Your task to perform on an android device: turn on data saver in the chrome app Image 0: 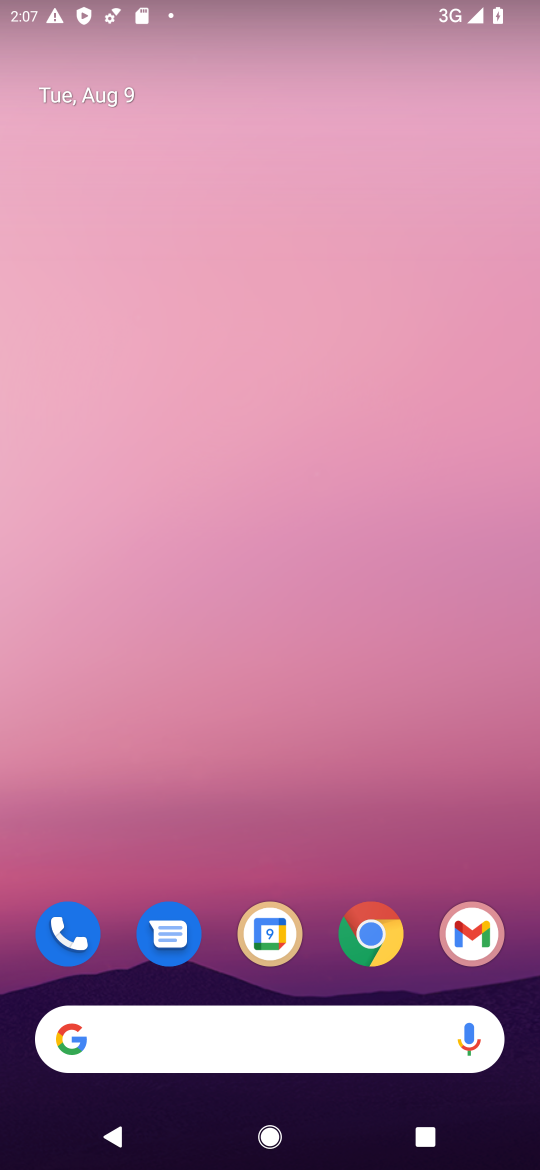
Step 0: click (353, 918)
Your task to perform on an android device: turn on data saver in the chrome app Image 1: 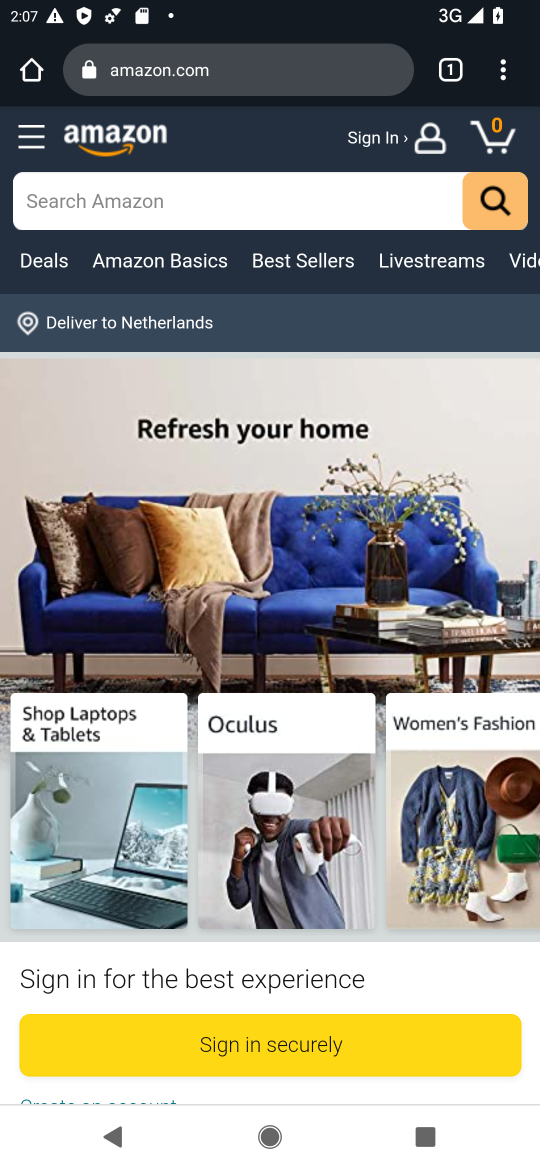
Step 1: click (511, 83)
Your task to perform on an android device: turn on data saver in the chrome app Image 2: 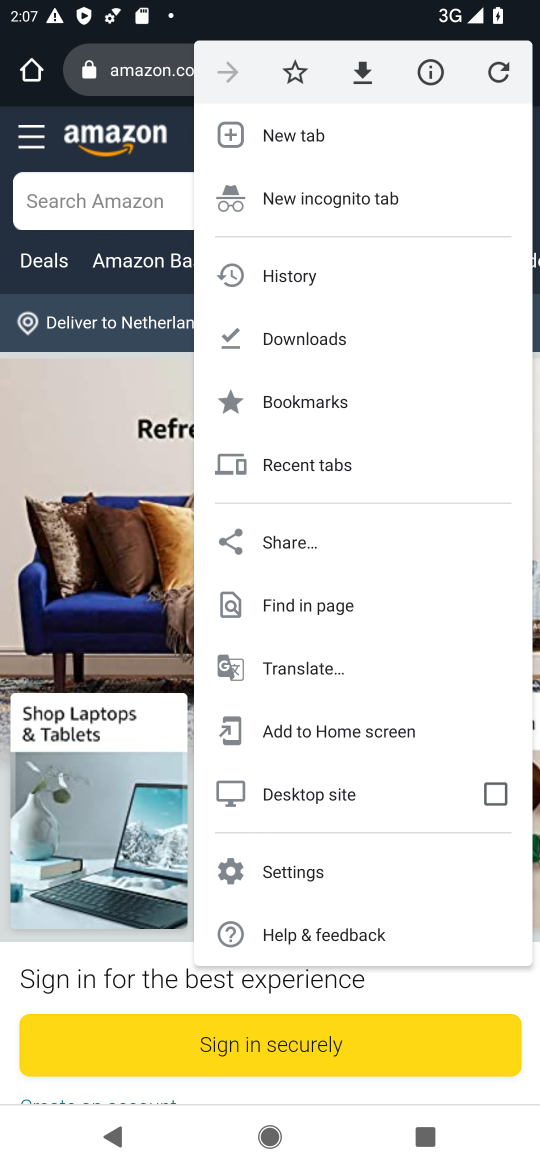
Step 2: click (325, 855)
Your task to perform on an android device: turn on data saver in the chrome app Image 3: 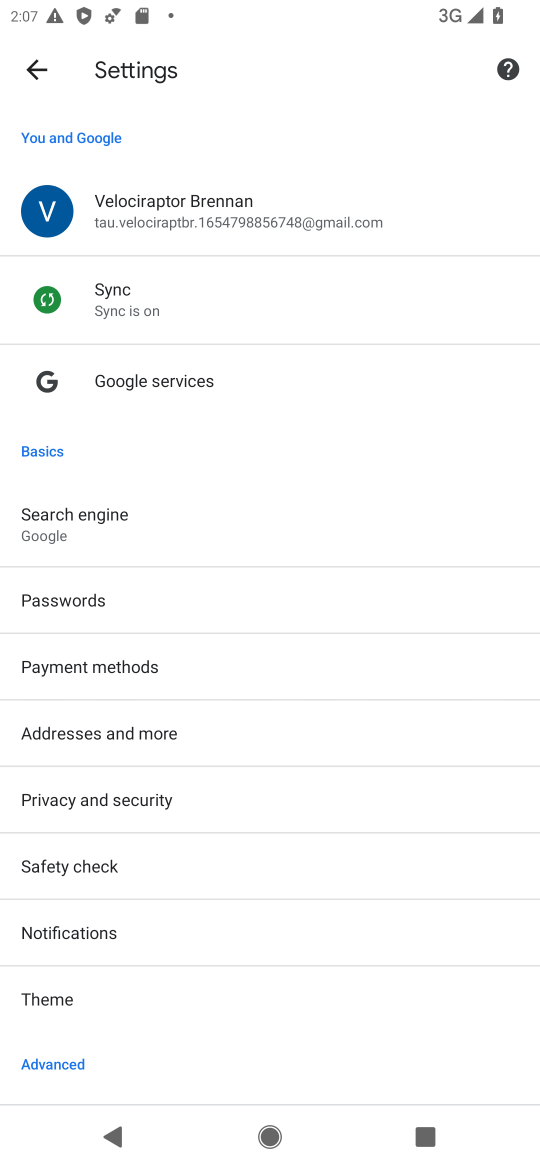
Step 3: drag from (228, 1036) to (313, 501)
Your task to perform on an android device: turn on data saver in the chrome app Image 4: 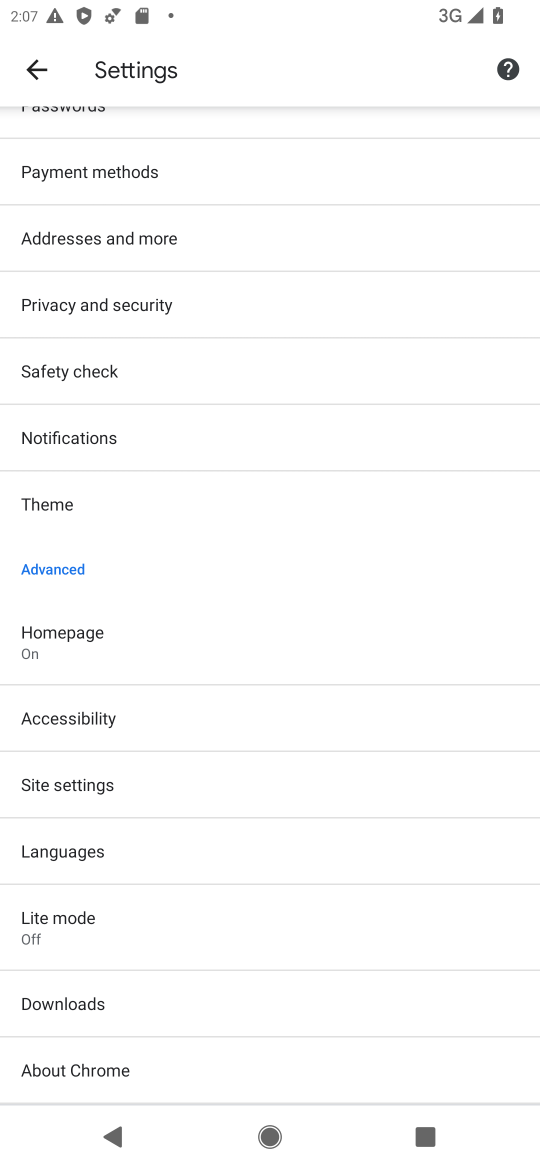
Step 4: click (243, 784)
Your task to perform on an android device: turn on data saver in the chrome app Image 5: 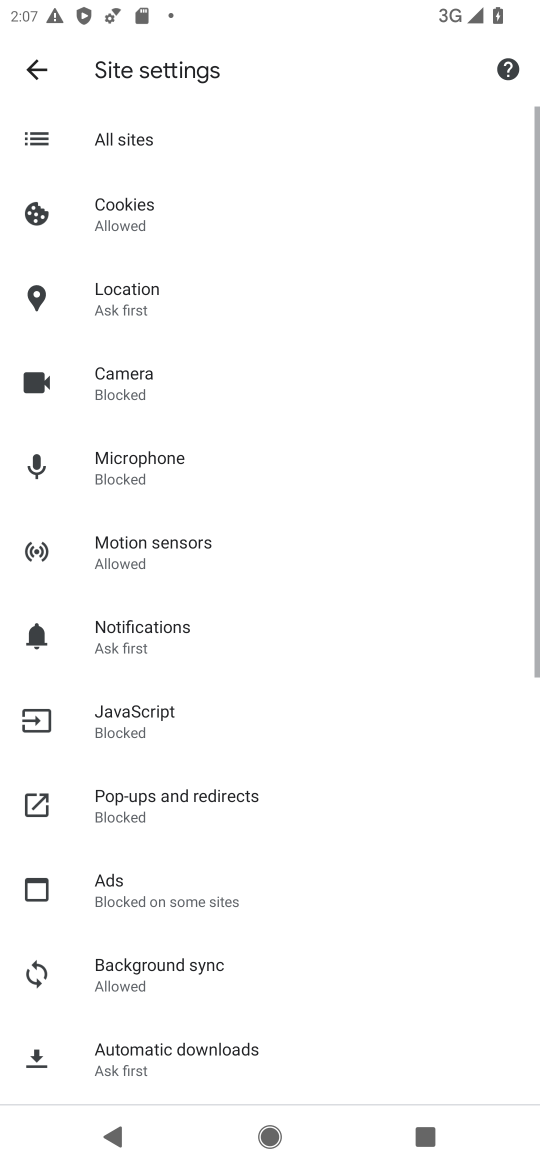
Step 5: task complete